Your task to perform on an android device: Go to location settings Image 0: 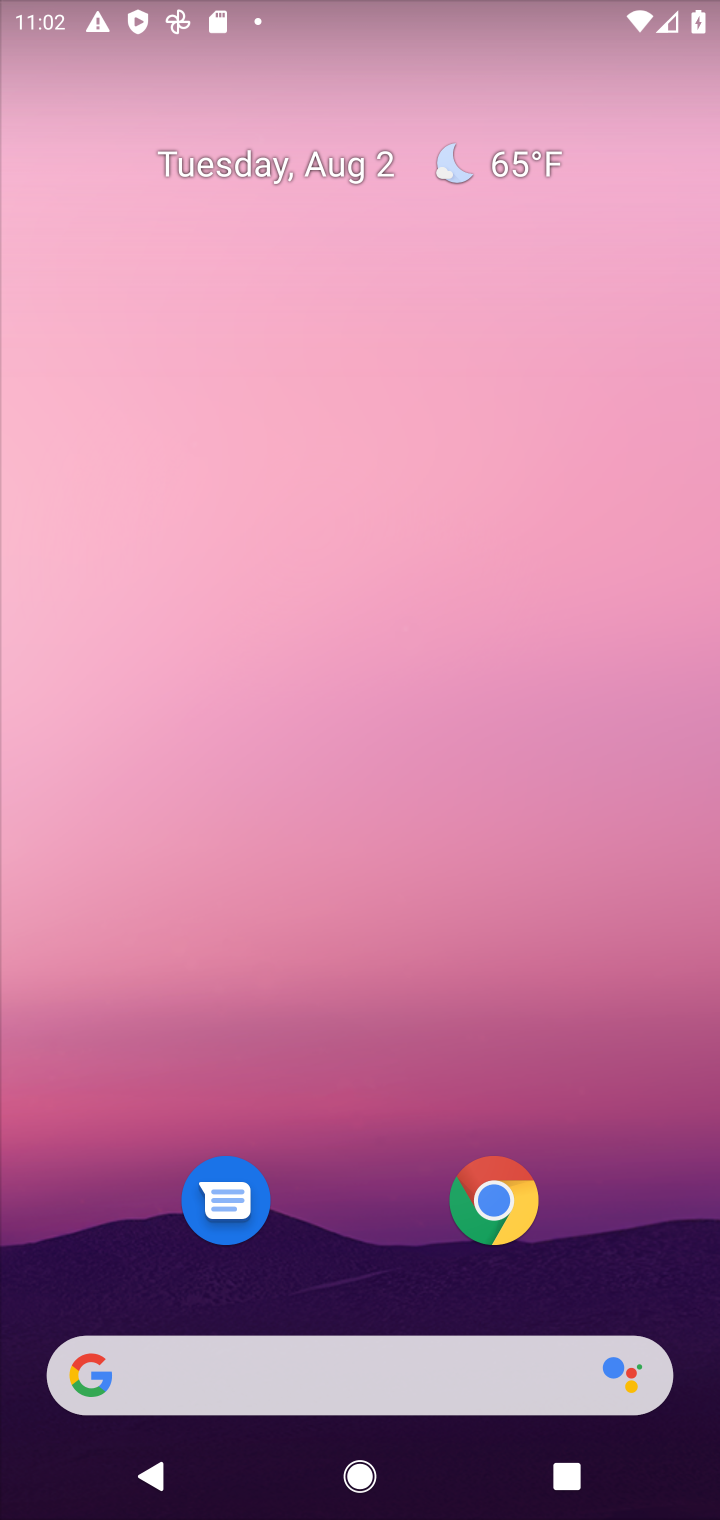
Step 0: drag from (669, 1293) to (615, 209)
Your task to perform on an android device: Go to location settings Image 1: 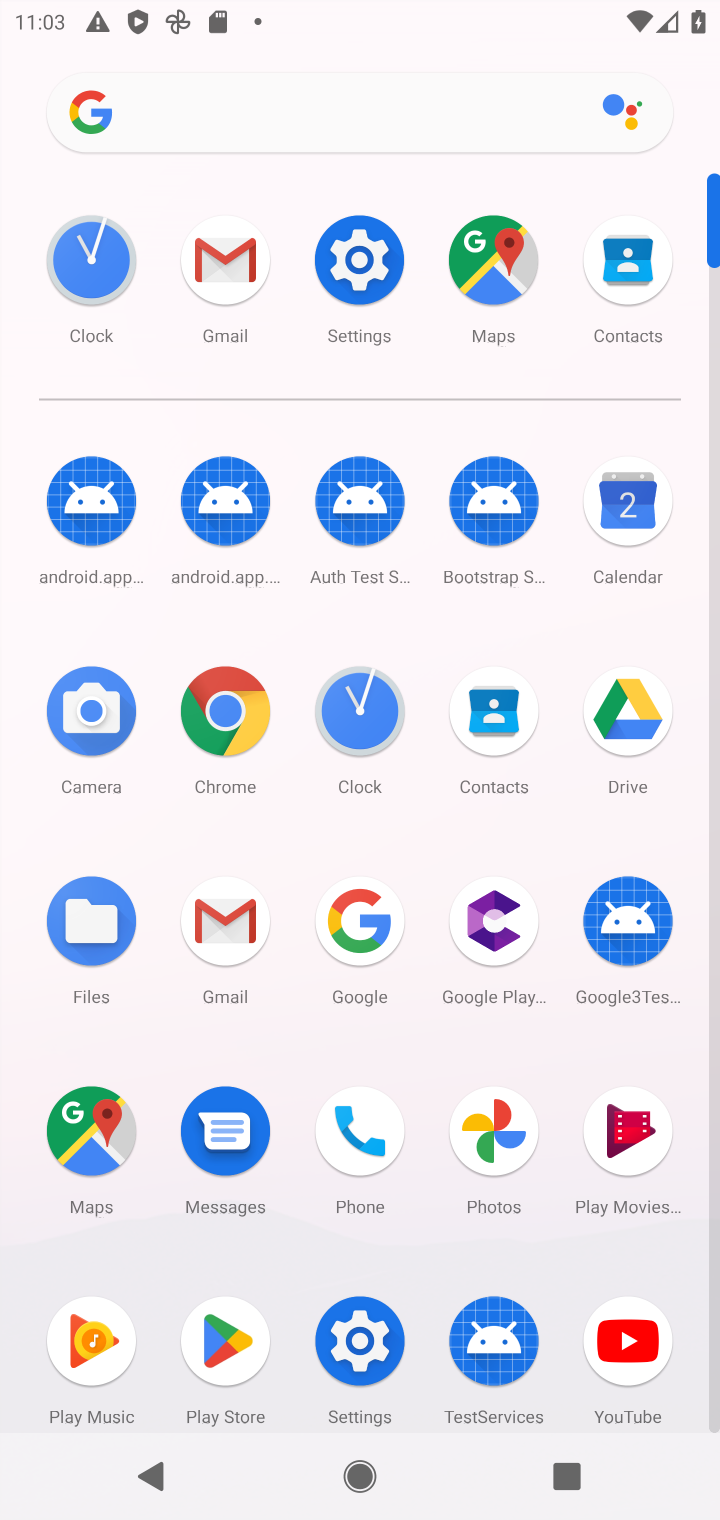
Step 1: click (366, 1347)
Your task to perform on an android device: Go to location settings Image 2: 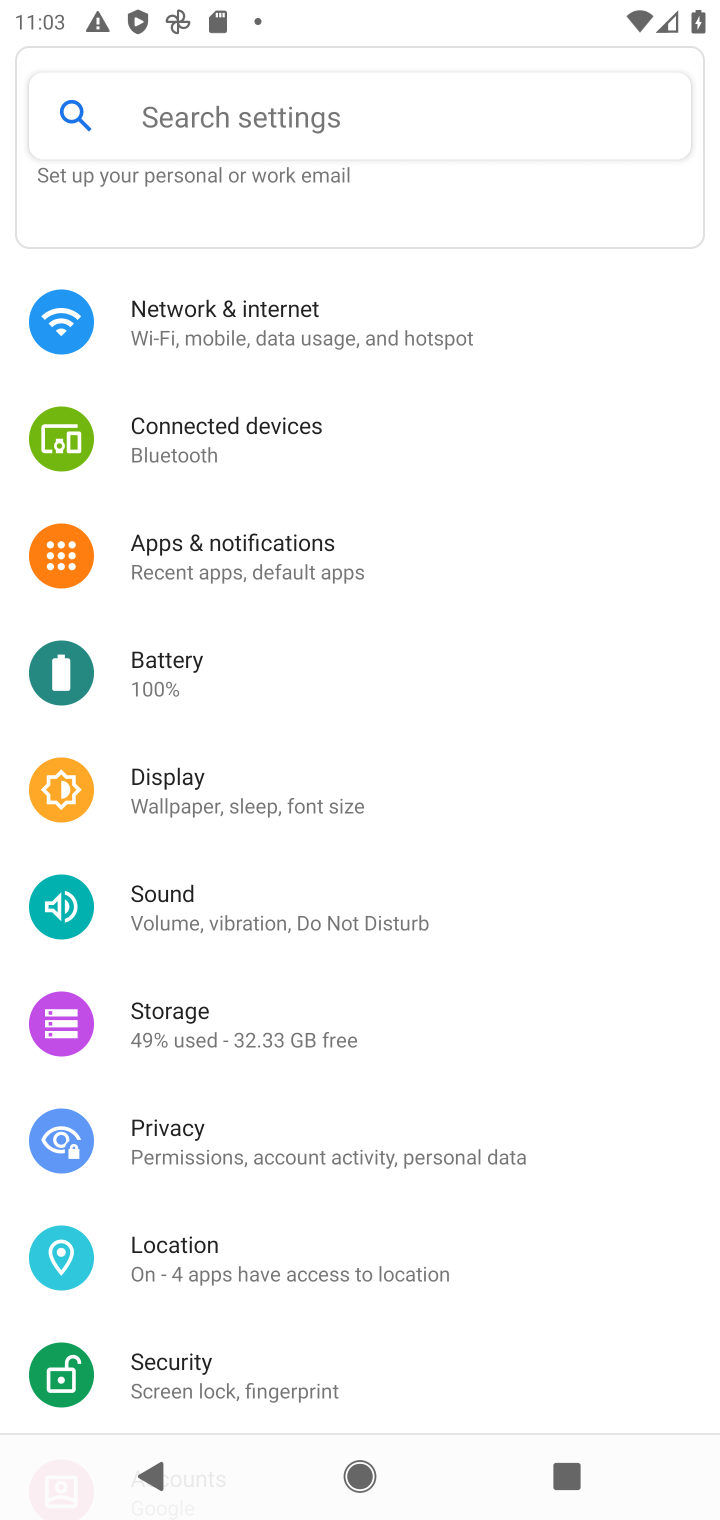
Step 2: click (169, 1264)
Your task to perform on an android device: Go to location settings Image 3: 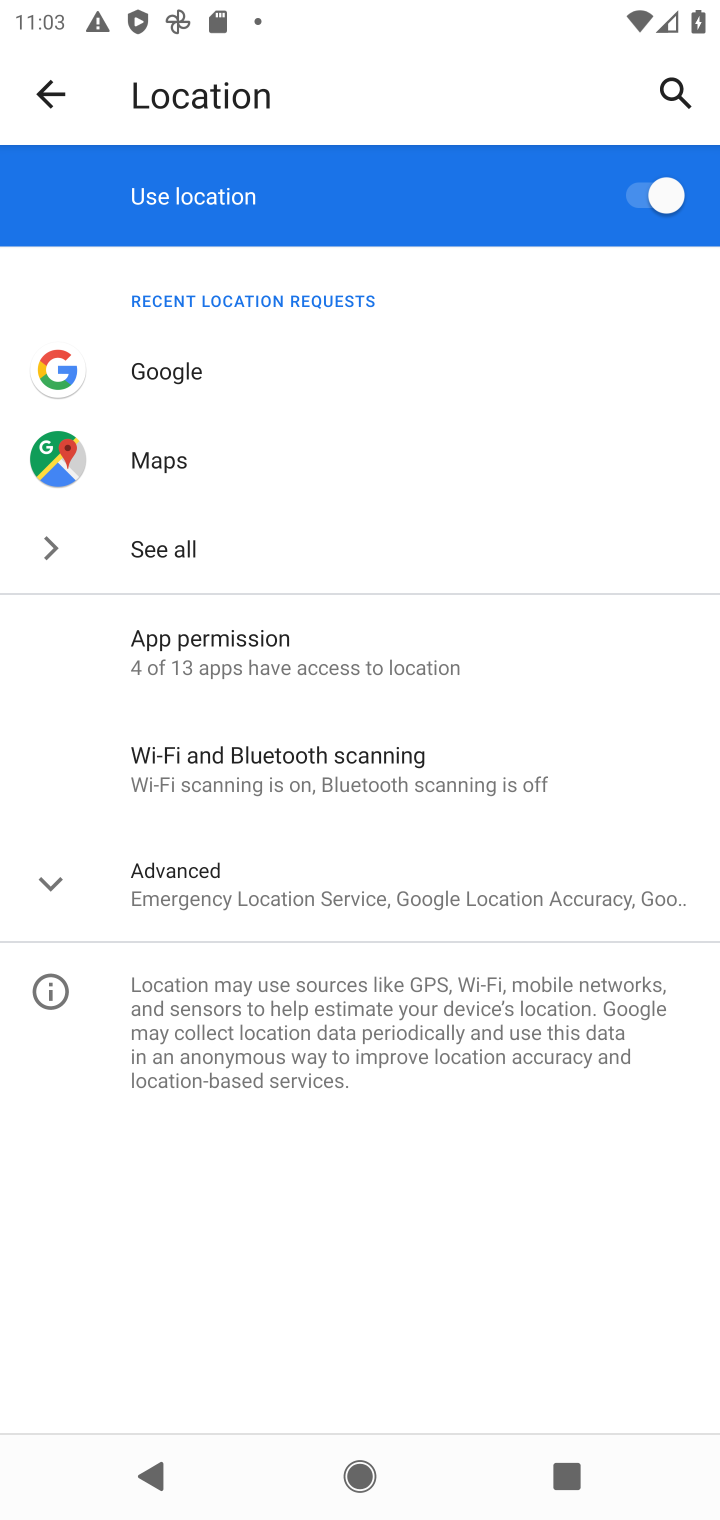
Step 3: task complete